Your task to perform on an android device: clear all cookies in the chrome app Image 0: 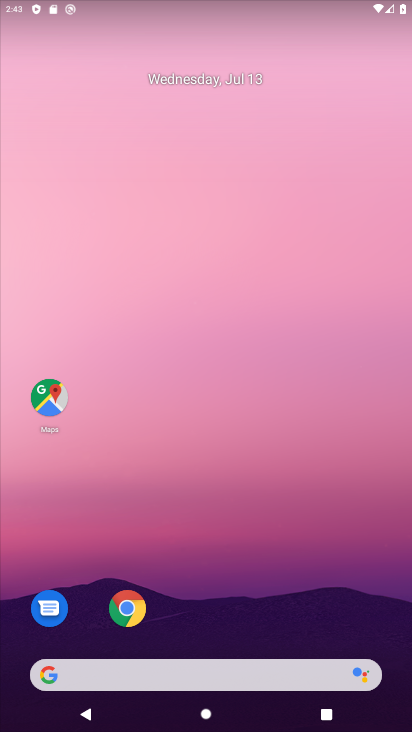
Step 0: click (125, 615)
Your task to perform on an android device: clear all cookies in the chrome app Image 1: 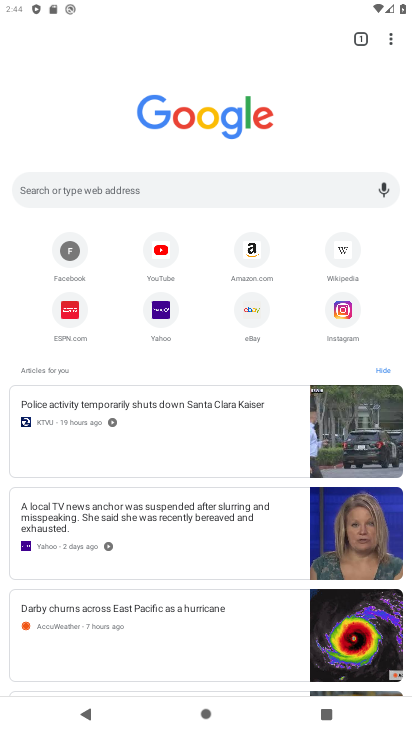
Step 1: drag from (399, 33) to (262, 327)
Your task to perform on an android device: clear all cookies in the chrome app Image 2: 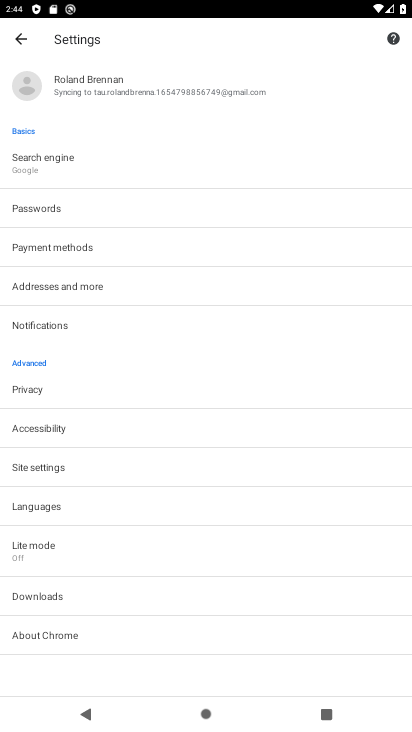
Step 2: click (71, 398)
Your task to perform on an android device: clear all cookies in the chrome app Image 3: 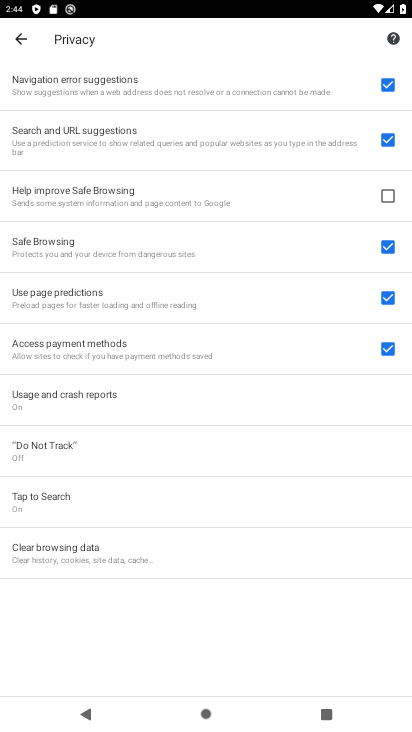
Step 3: click (168, 560)
Your task to perform on an android device: clear all cookies in the chrome app Image 4: 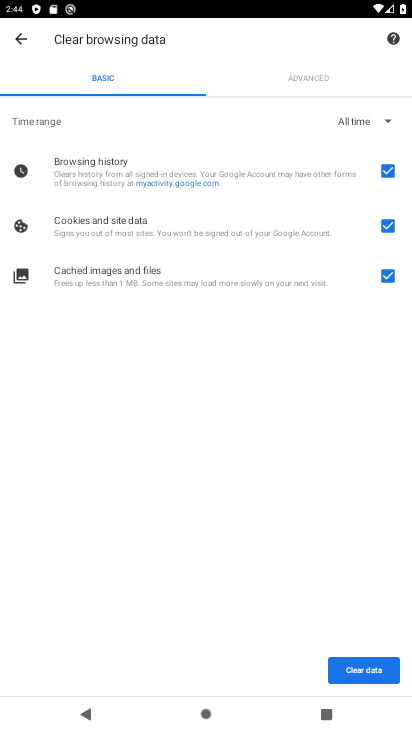
Step 4: click (384, 163)
Your task to perform on an android device: clear all cookies in the chrome app Image 5: 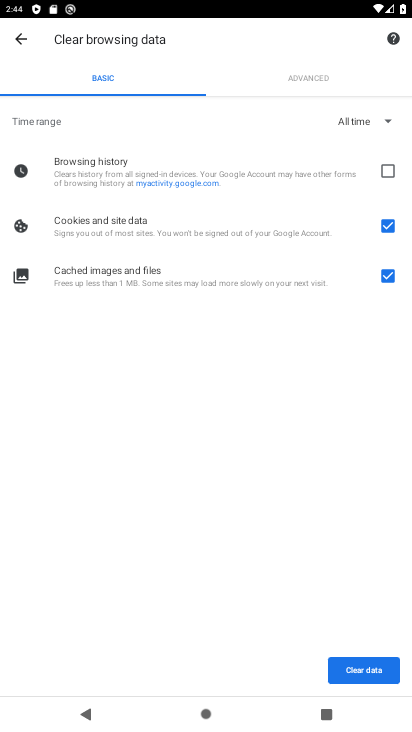
Step 5: click (385, 277)
Your task to perform on an android device: clear all cookies in the chrome app Image 6: 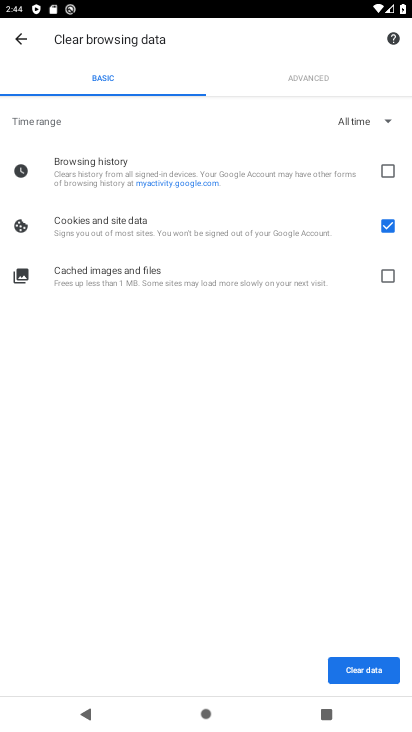
Step 6: click (351, 660)
Your task to perform on an android device: clear all cookies in the chrome app Image 7: 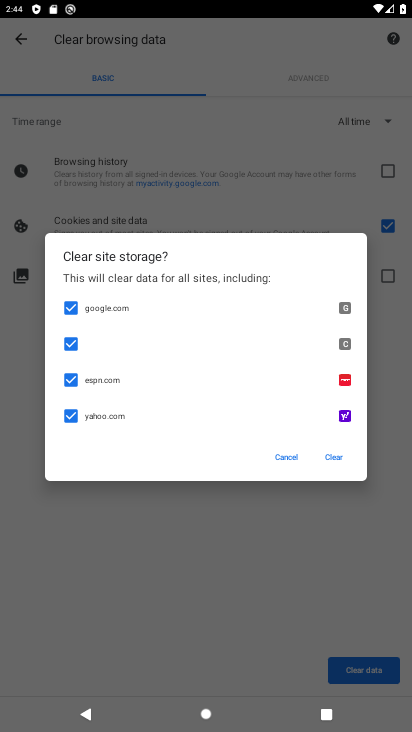
Step 7: click (334, 453)
Your task to perform on an android device: clear all cookies in the chrome app Image 8: 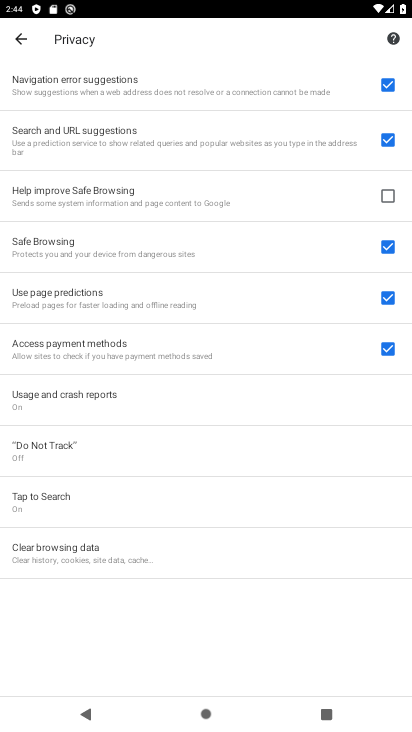
Step 8: task complete